Your task to perform on an android device: Open the calendar app, open the side menu, and click the "Day" option Image 0: 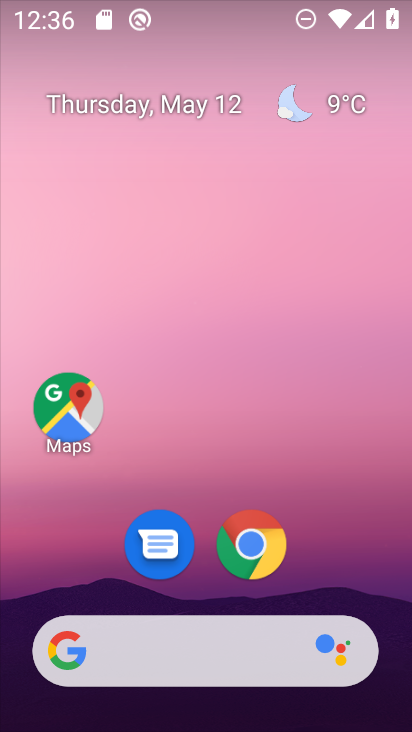
Step 0: click (210, 331)
Your task to perform on an android device: Open the calendar app, open the side menu, and click the "Day" option Image 1: 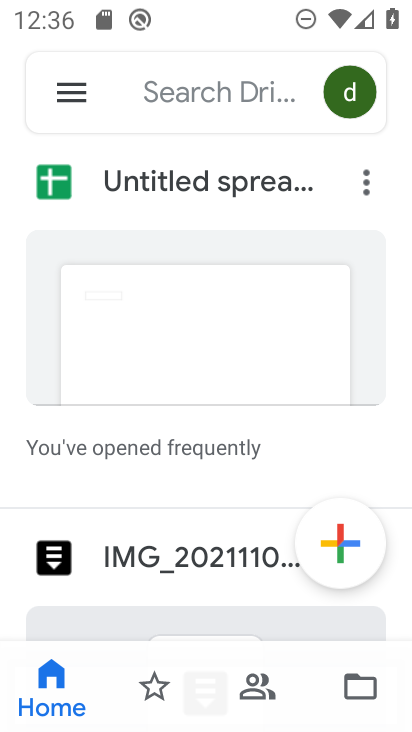
Step 1: press home button
Your task to perform on an android device: Open the calendar app, open the side menu, and click the "Day" option Image 2: 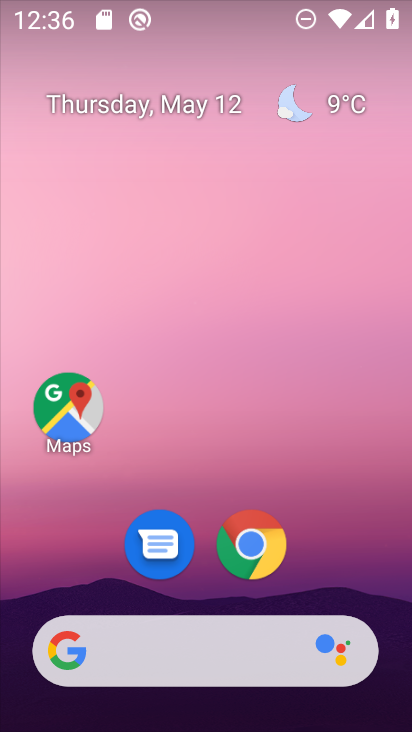
Step 2: drag from (217, 719) to (231, 19)
Your task to perform on an android device: Open the calendar app, open the side menu, and click the "Day" option Image 3: 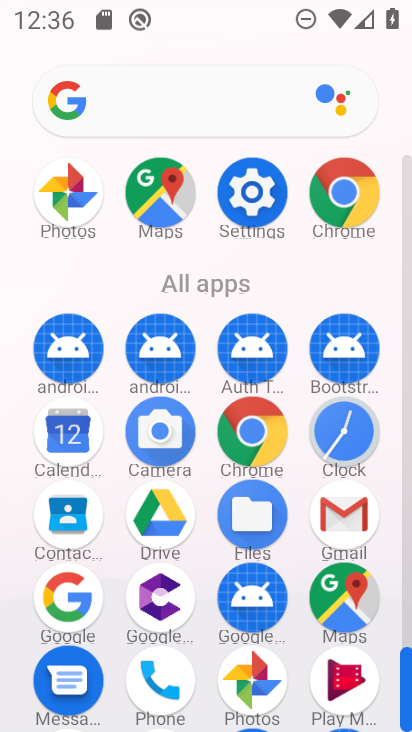
Step 3: click (65, 431)
Your task to perform on an android device: Open the calendar app, open the side menu, and click the "Day" option Image 4: 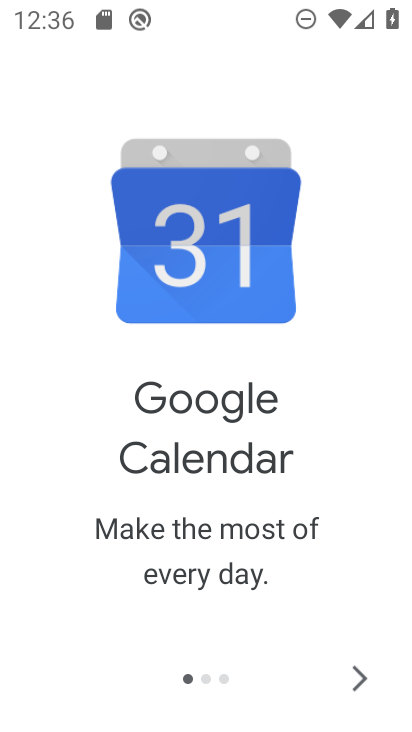
Step 4: click (358, 683)
Your task to perform on an android device: Open the calendar app, open the side menu, and click the "Day" option Image 5: 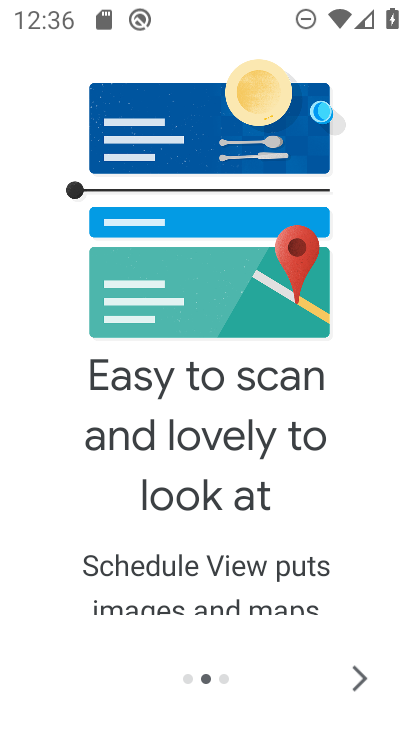
Step 5: click (360, 669)
Your task to perform on an android device: Open the calendar app, open the side menu, and click the "Day" option Image 6: 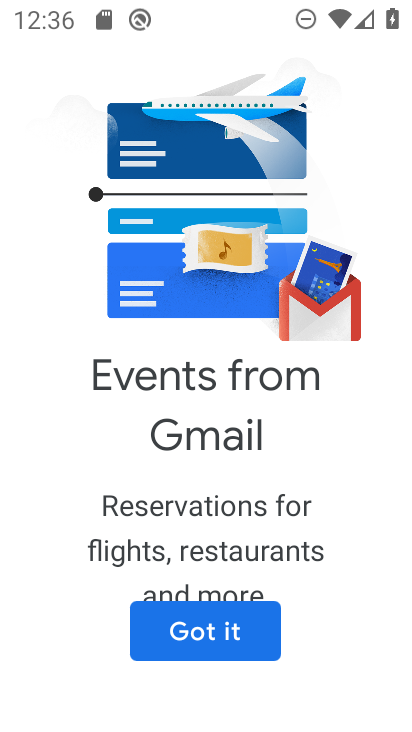
Step 6: click (246, 624)
Your task to perform on an android device: Open the calendar app, open the side menu, and click the "Day" option Image 7: 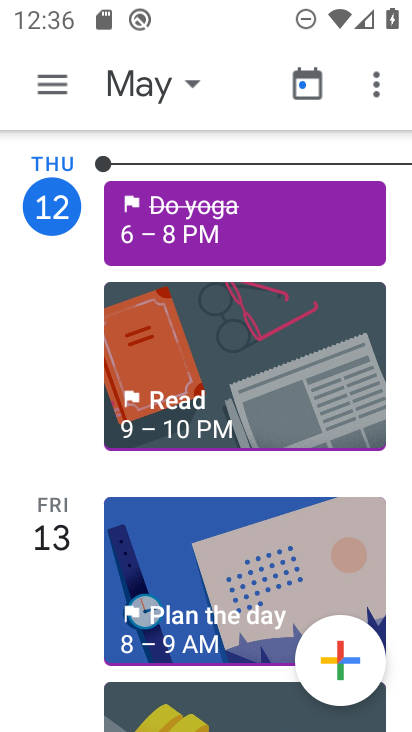
Step 7: click (56, 88)
Your task to perform on an android device: Open the calendar app, open the side menu, and click the "Day" option Image 8: 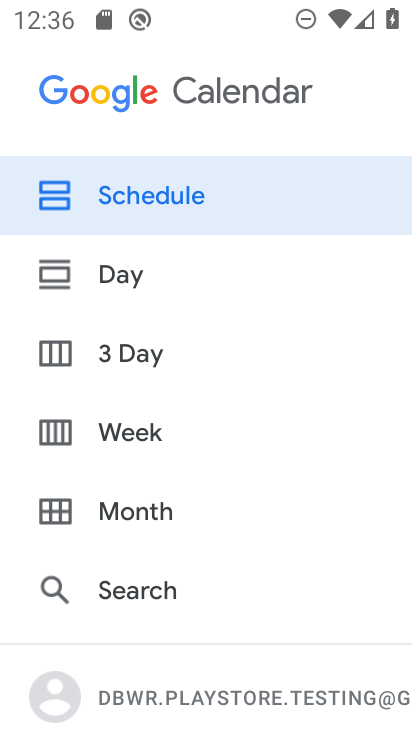
Step 8: click (102, 269)
Your task to perform on an android device: Open the calendar app, open the side menu, and click the "Day" option Image 9: 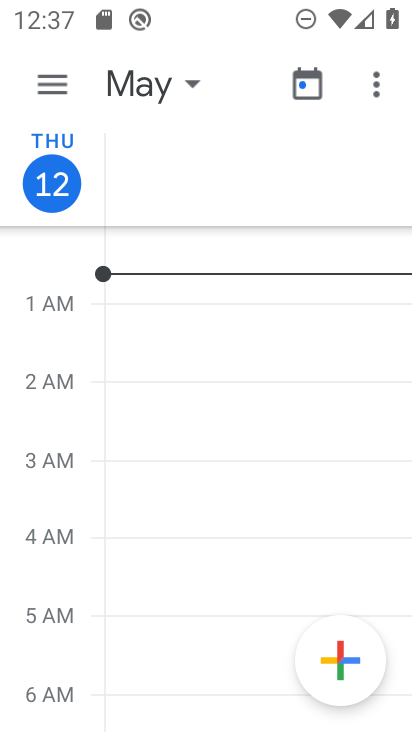
Step 9: task complete